Your task to perform on an android device: Go to display settings Image 0: 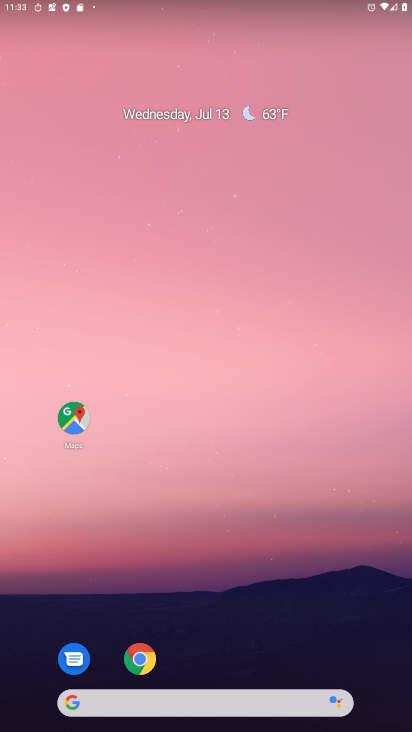
Step 0: drag from (299, 582) to (258, 248)
Your task to perform on an android device: Go to display settings Image 1: 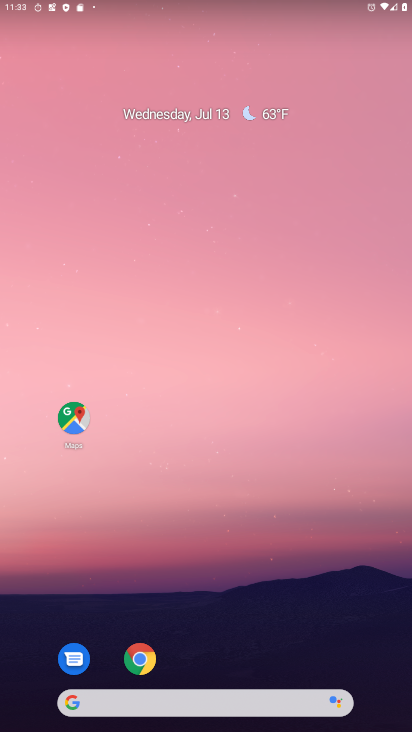
Step 1: drag from (316, 622) to (252, 186)
Your task to perform on an android device: Go to display settings Image 2: 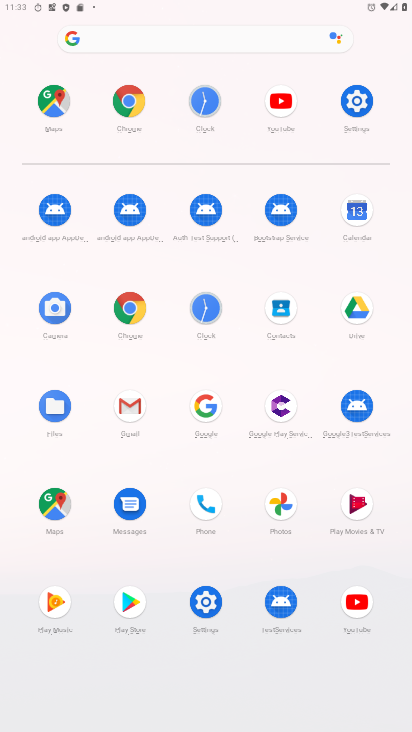
Step 2: click (357, 103)
Your task to perform on an android device: Go to display settings Image 3: 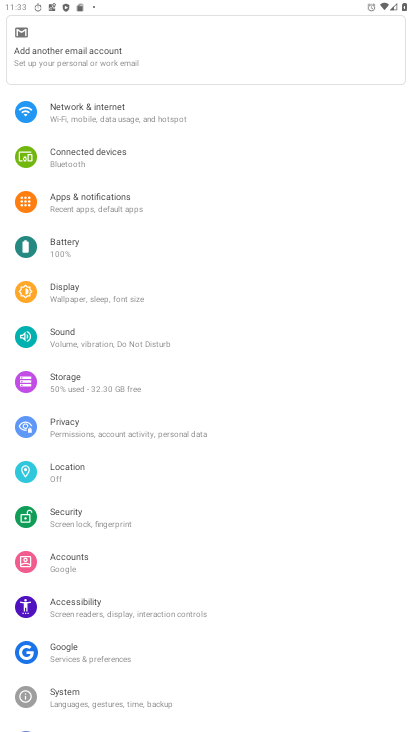
Step 3: click (98, 306)
Your task to perform on an android device: Go to display settings Image 4: 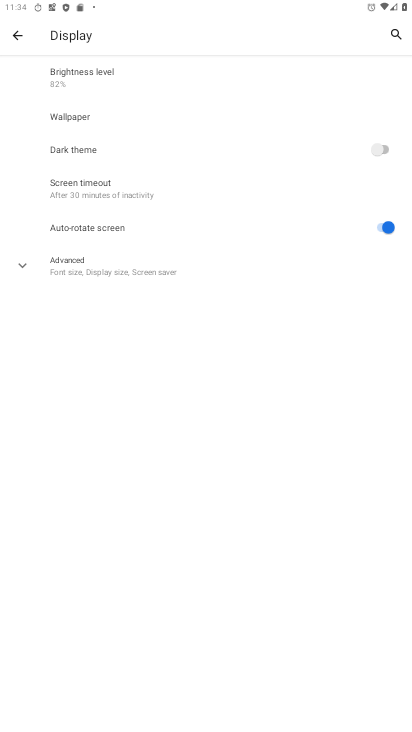
Step 4: task complete